Your task to perform on an android device: change alarm snooze length Image 0: 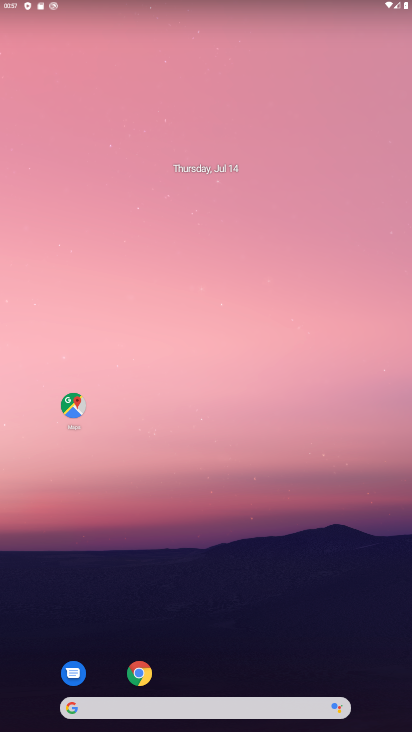
Step 0: drag from (347, 649) to (274, 194)
Your task to perform on an android device: change alarm snooze length Image 1: 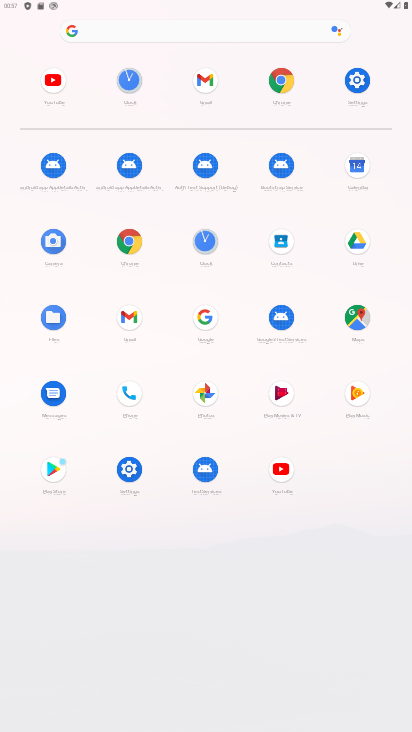
Step 1: click (141, 96)
Your task to perform on an android device: change alarm snooze length Image 2: 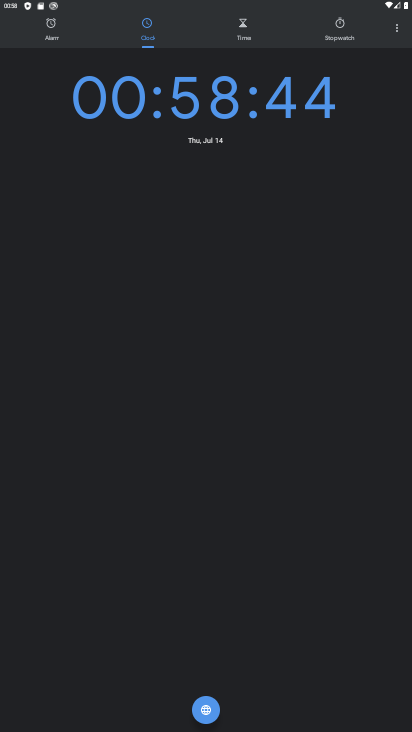
Step 2: click (391, 24)
Your task to perform on an android device: change alarm snooze length Image 3: 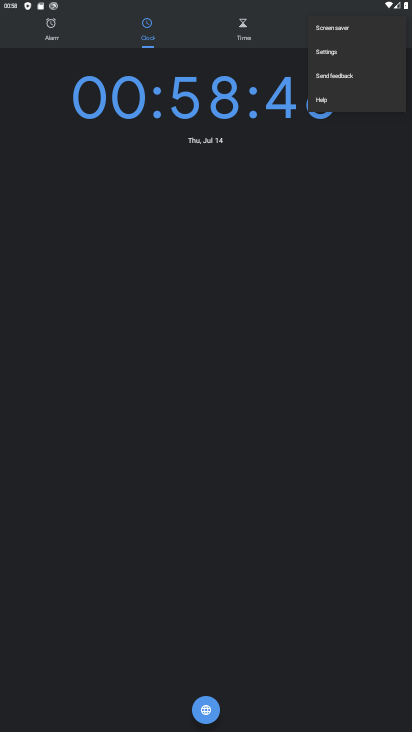
Step 3: click (319, 57)
Your task to perform on an android device: change alarm snooze length Image 4: 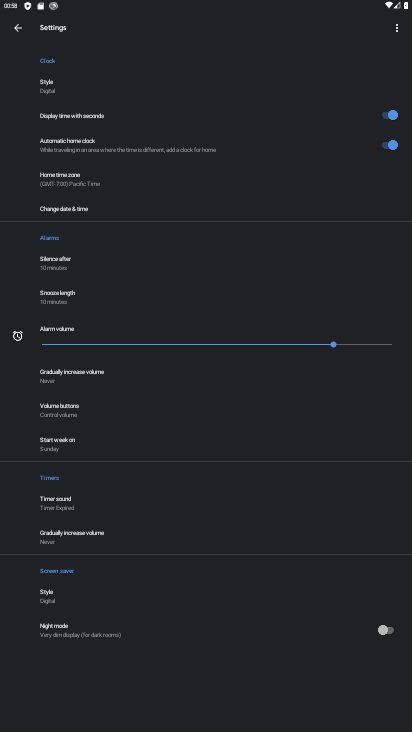
Step 4: click (85, 297)
Your task to perform on an android device: change alarm snooze length Image 5: 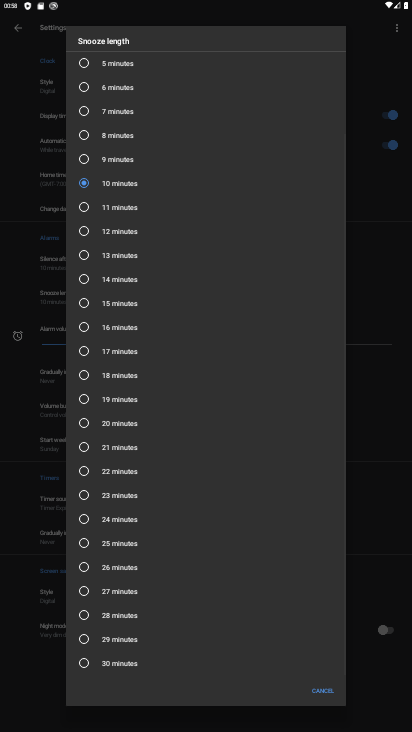
Step 5: click (124, 282)
Your task to perform on an android device: change alarm snooze length Image 6: 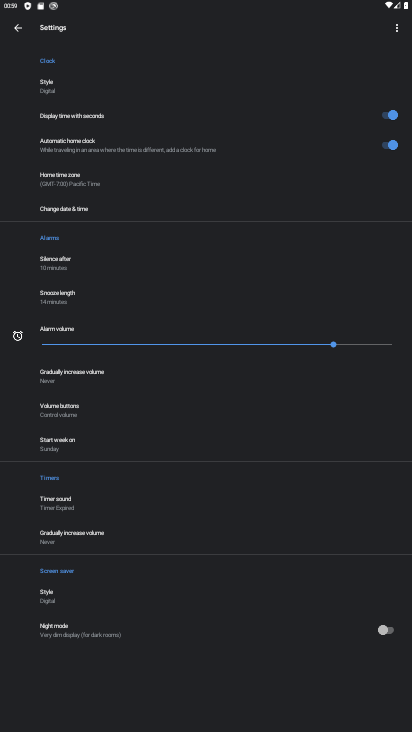
Step 6: task complete